Your task to perform on an android device: Search for seafood restaurants on Google Maps Image 0: 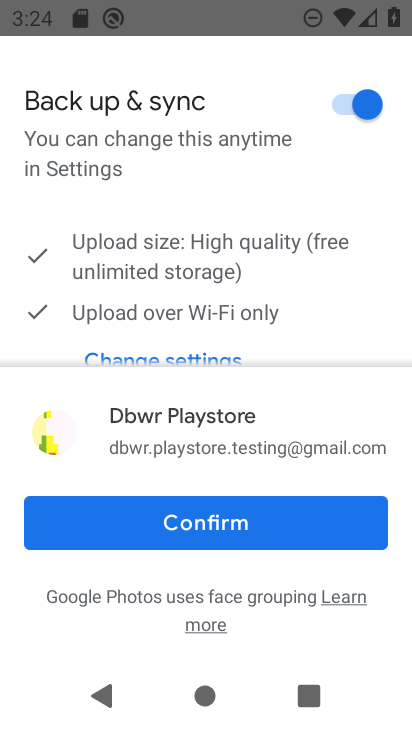
Step 0: press home button
Your task to perform on an android device: Search for seafood restaurants on Google Maps Image 1: 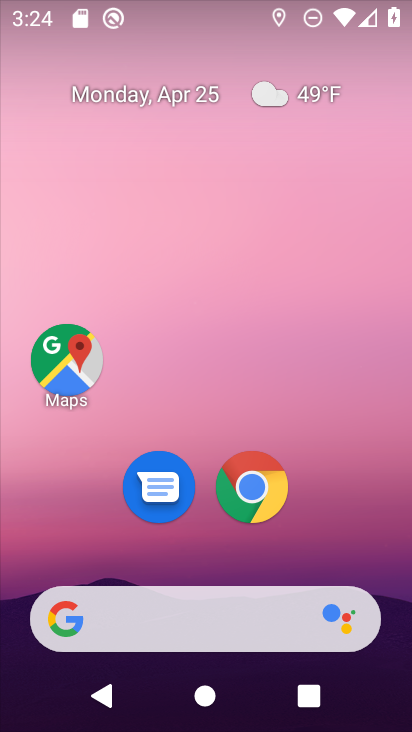
Step 1: click (64, 374)
Your task to perform on an android device: Search for seafood restaurants on Google Maps Image 2: 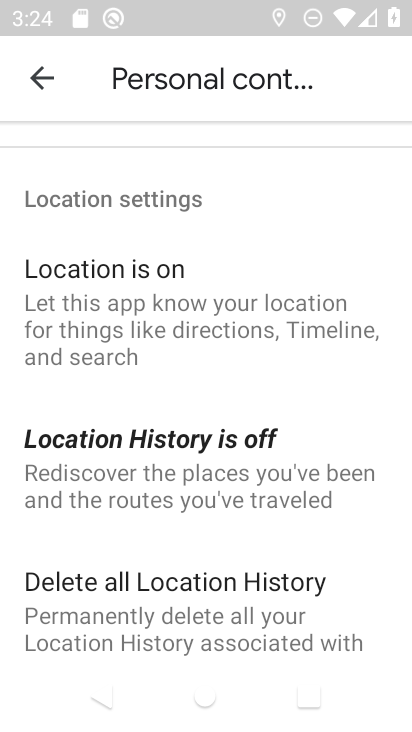
Step 2: click (32, 87)
Your task to perform on an android device: Search for seafood restaurants on Google Maps Image 3: 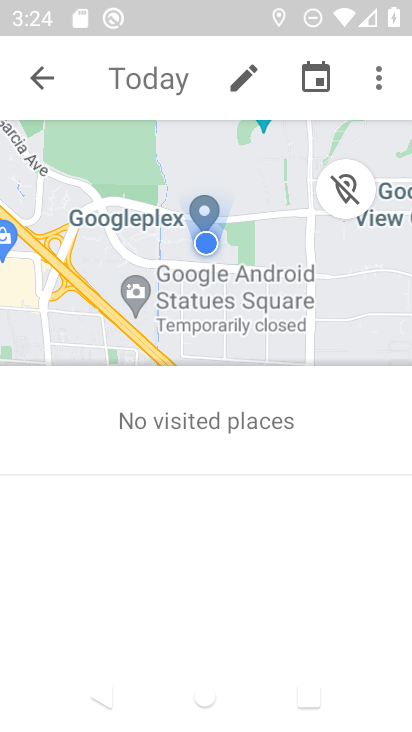
Step 3: click (42, 85)
Your task to perform on an android device: Search for seafood restaurants on Google Maps Image 4: 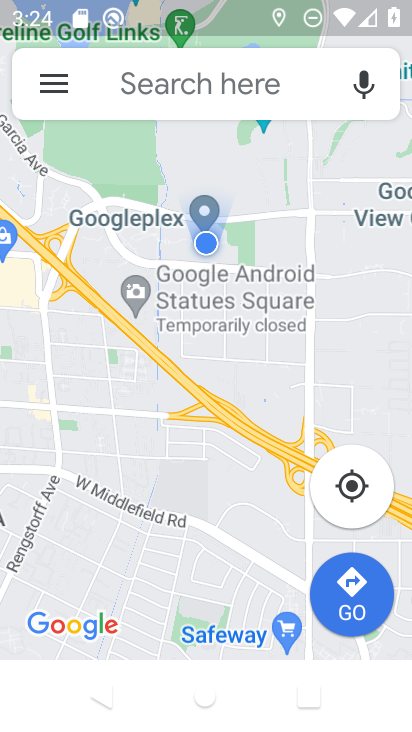
Step 4: click (136, 88)
Your task to perform on an android device: Search for seafood restaurants on Google Maps Image 5: 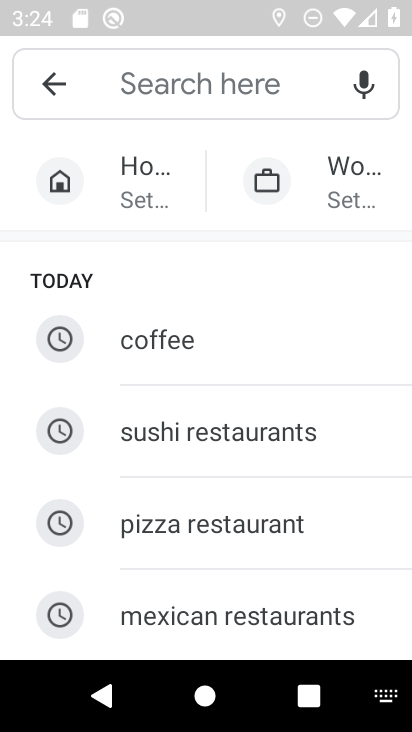
Step 5: type "seafood restaurant "
Your task to perform on an android device: Search for seafood restaurants on Google Maps Image 6: 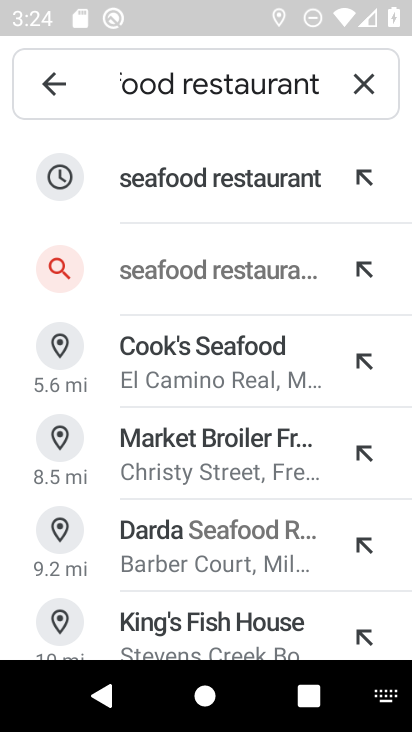
Step 6: click (185, 186)
Your task to perform on an android device: Search for seafood restaurants on Google Maps Image 7: 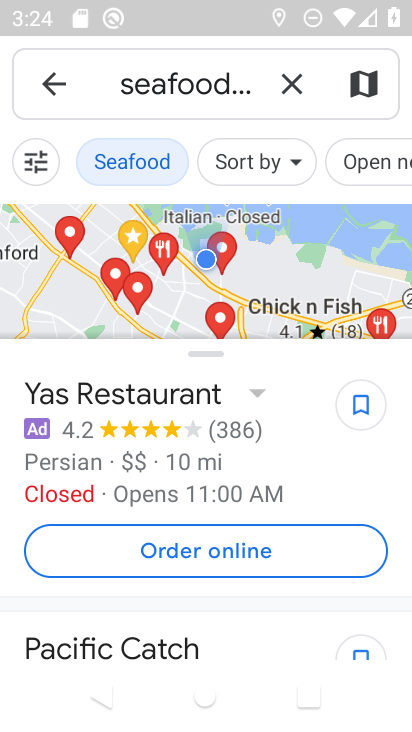
Step 7: task complete